Your task to perform on an android device: turn on javascript in the chrome app Image 0: 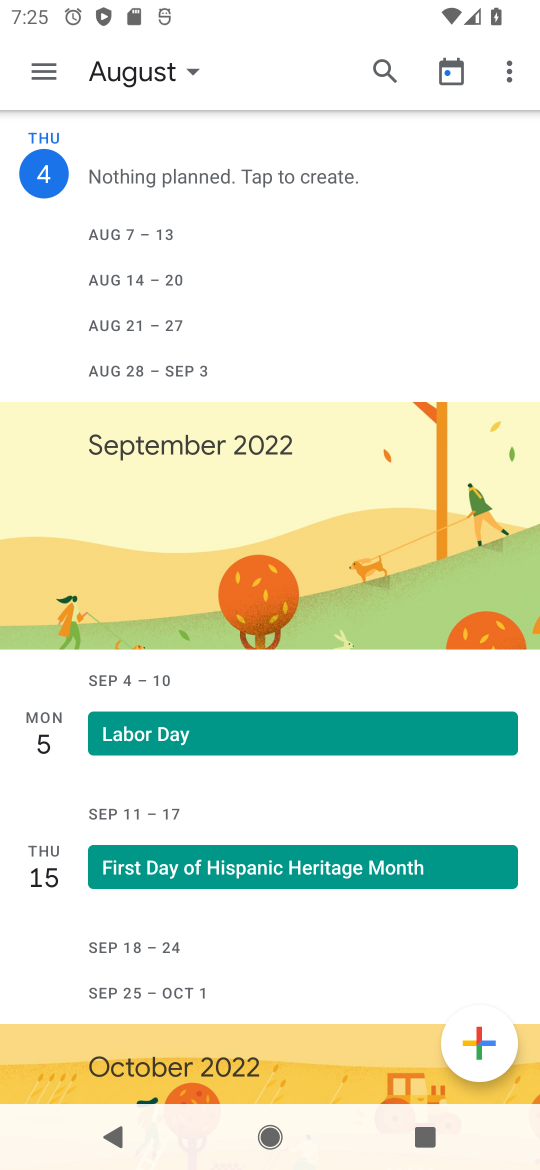
Step 0: press home button
Your task to perform on an android device: turn on javascript in the chrome app Image 1: 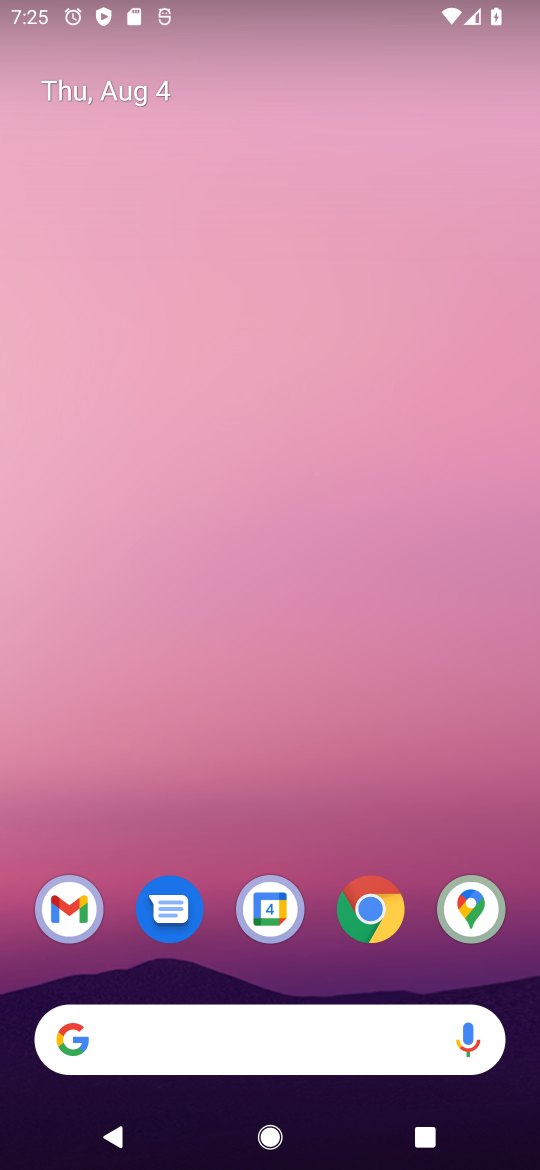
Step 1: drag from (287, 580) to (345, 0)
Your task to perform on an android device: turn on javascript in the chrome app Image 2: 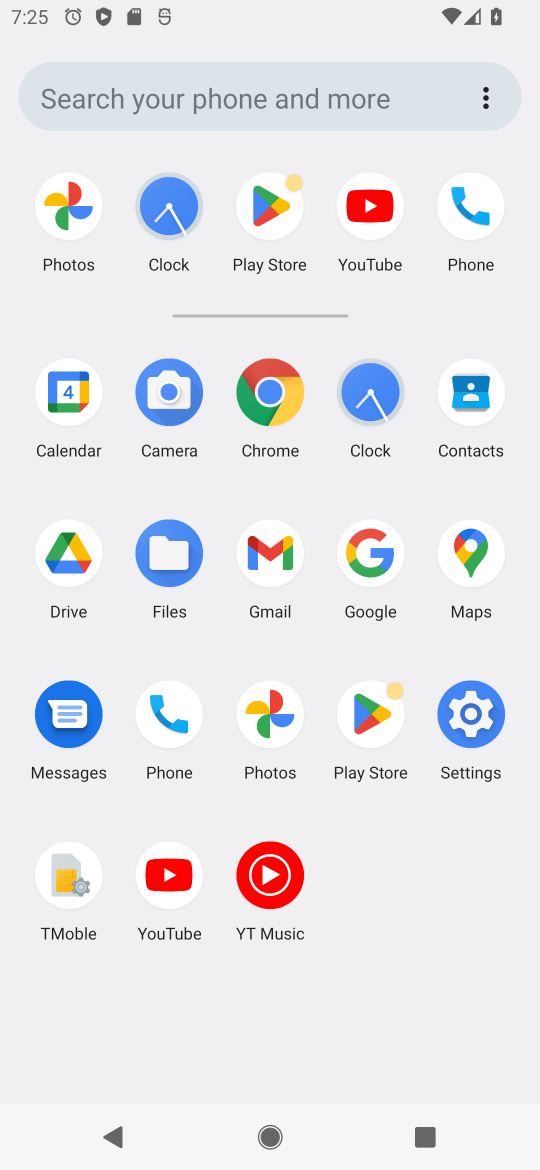
Step 2: click (278, 397)
Your task to perform on an android device: turn on javascript in the chrome app Image 3: 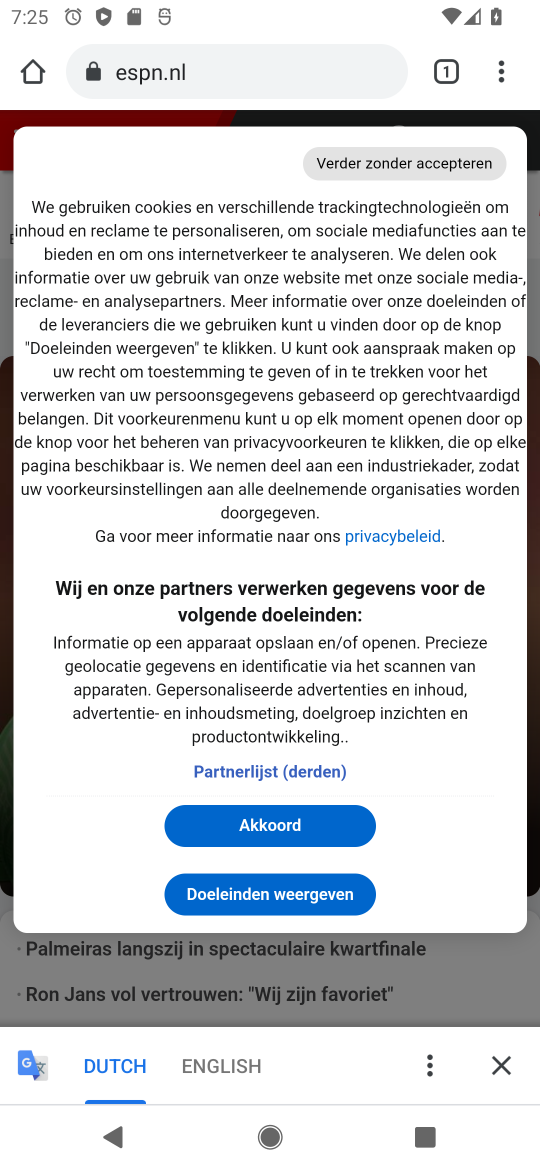
Step 3: drag from (505, 70) to (279, 1022)
Your task to perform on an android device: turn on javascript in the chrome app Image 4: 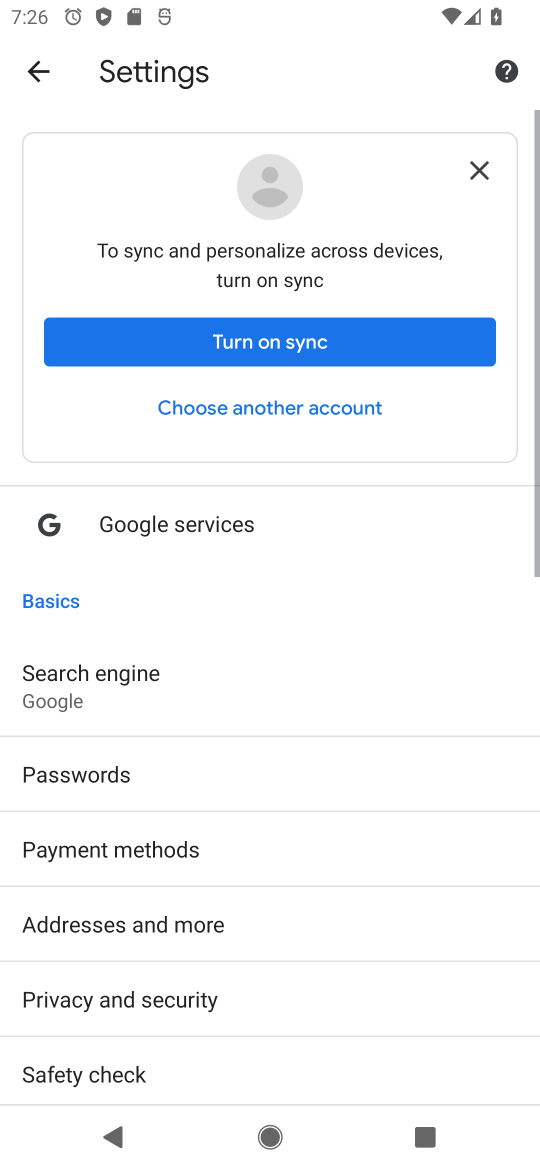
Step 4: drag from (205, 932) to (266, 150)
Your task to perform on an android device: turn on javascript in the chrome app Image 5: 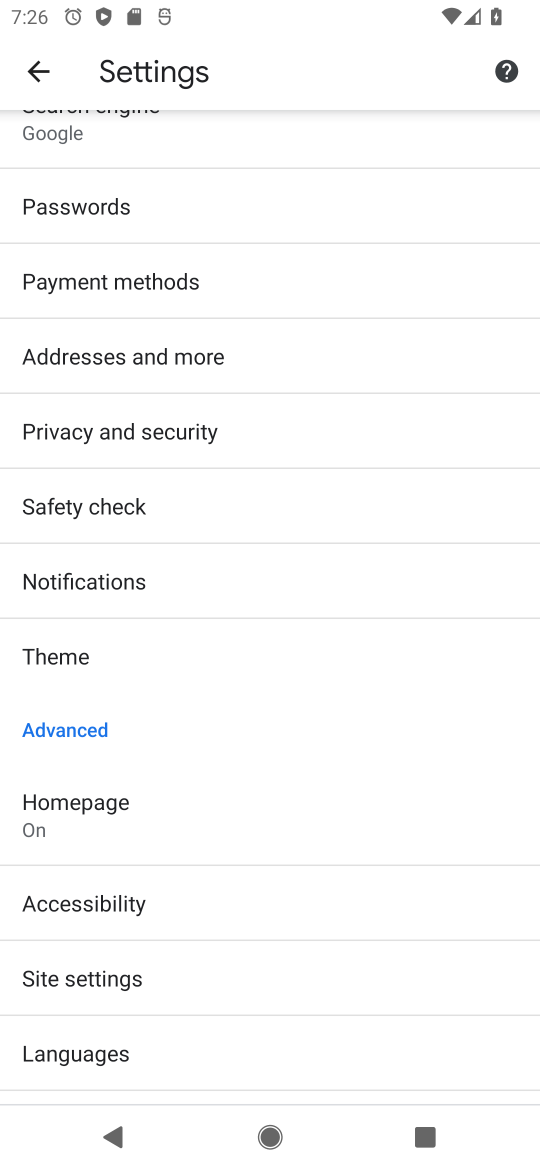
Step 5: drag from (197, 951) to (216, 322)
Your task to perform on an android device: turn on javascript in the chrome app Image 6: 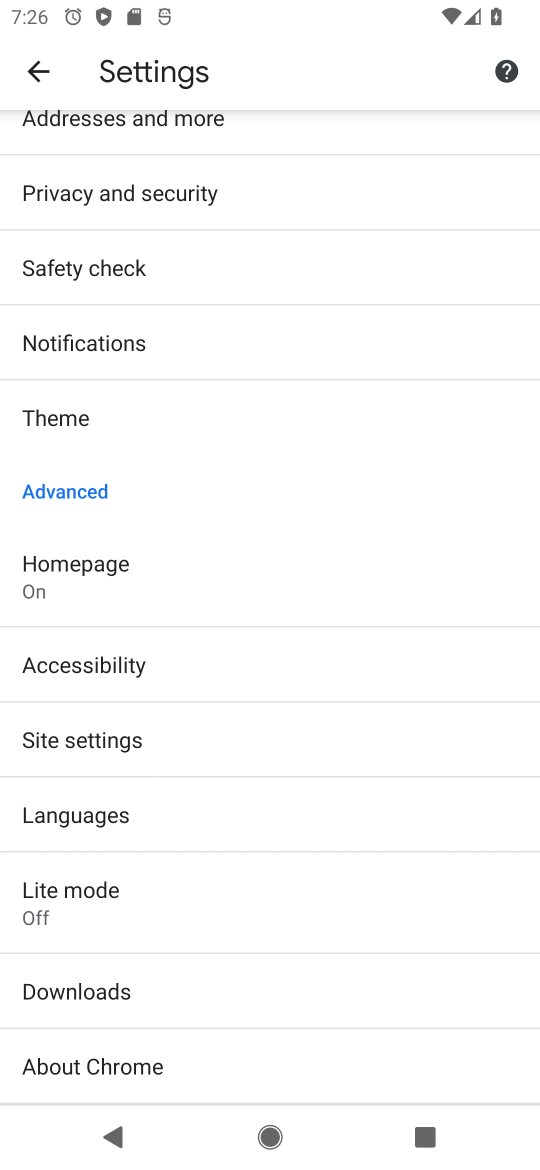
Step 6: click (128, 747)
Your task to perform on an android device: turn on javascript in the chrome app Image 7: 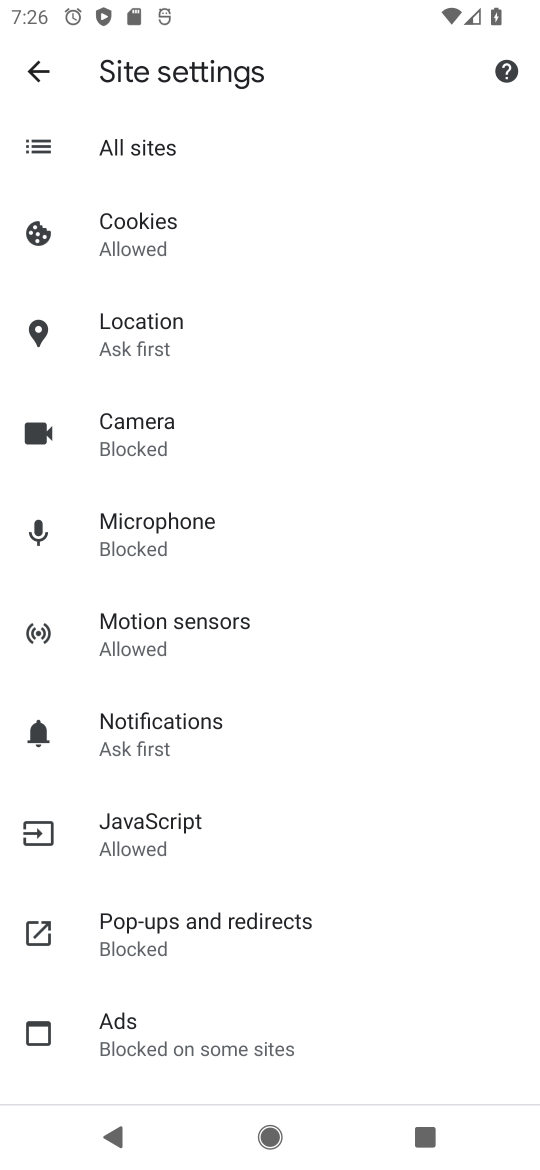
Step 7: click (160, 849)
Your task to perform on an android device: turn on javascript in the chrome app Image 8: 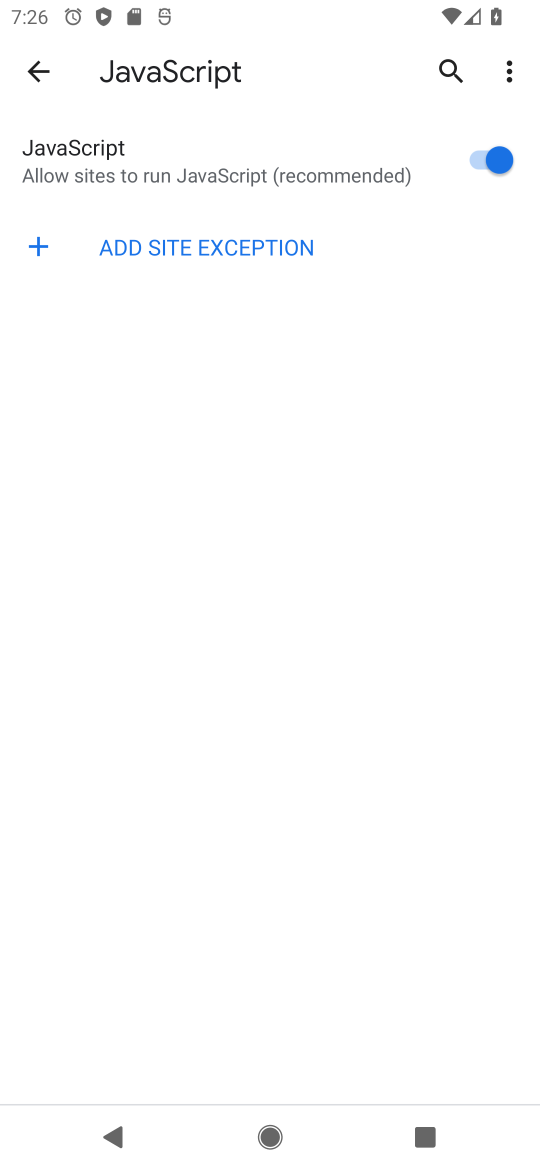
Step 8: task complete